Your task to perform on an android device: open app "Google Play Games" (install if not already installed) Image 0: 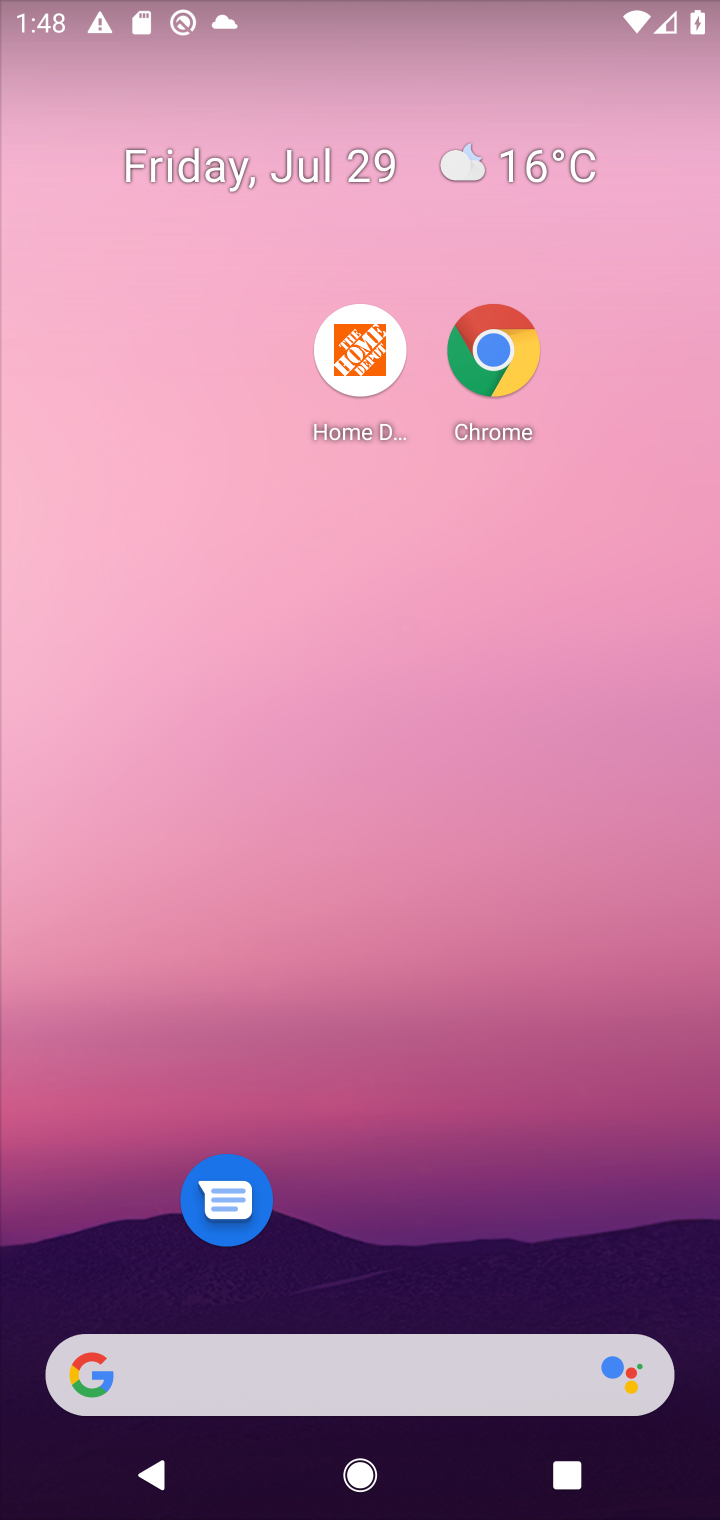
Step 0: press home button
Your task to perform on an android device: open app "Google Play Games" (install if not already installed) Image 1: 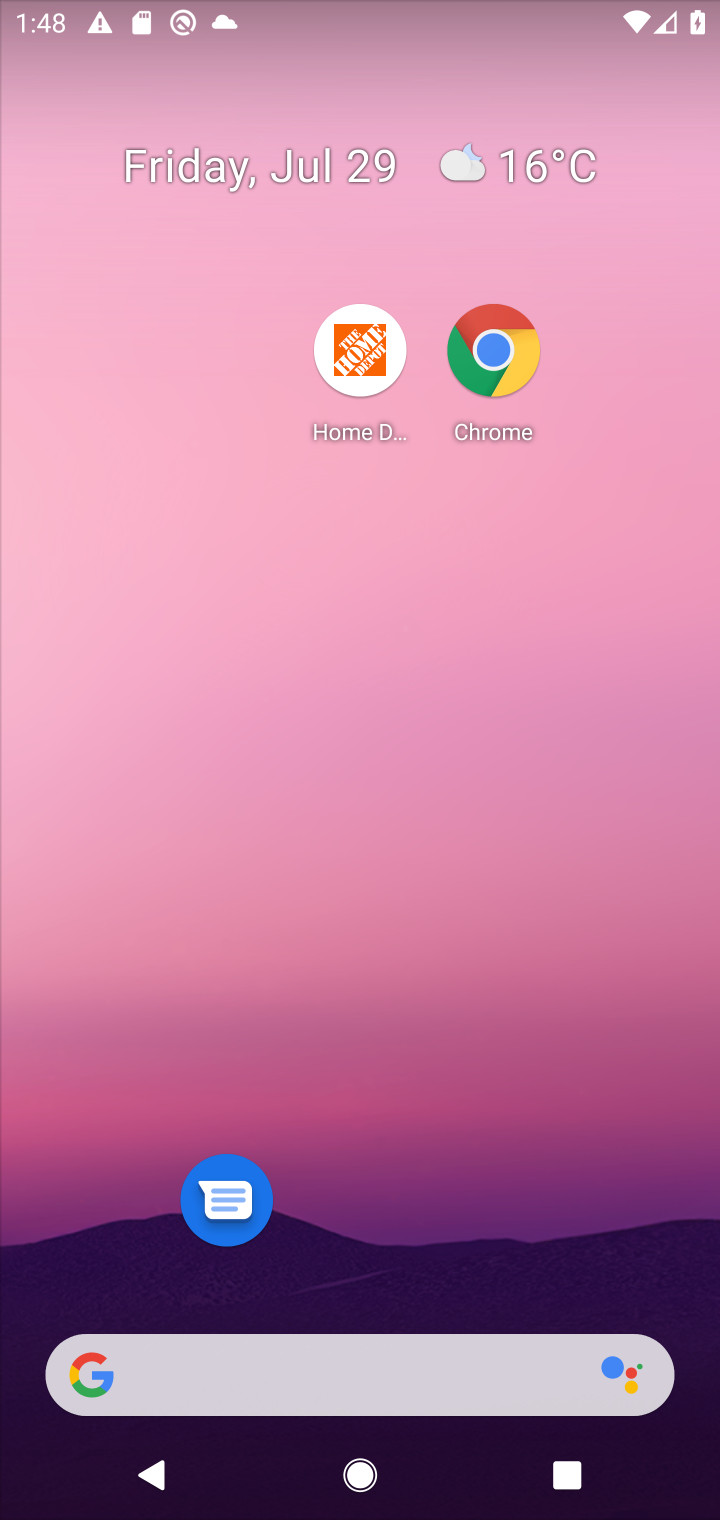
Step 1: drag from (554, 1158) to (398, 213)
Your task to perform on an android device: open app "Google Play Games" (install if not already installed) Image 2: 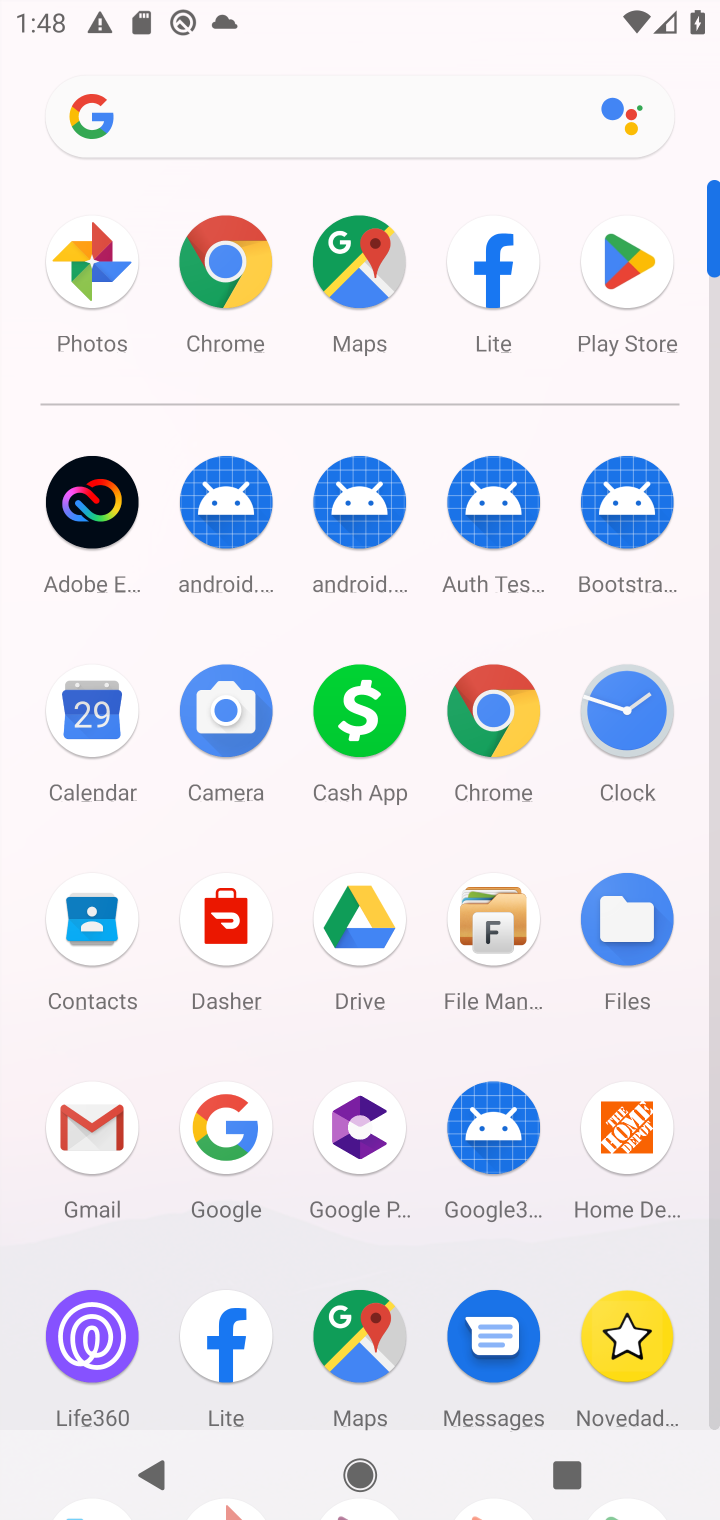
Step 2: click (605, 265)
Your task to perform on an android device: open app "Google Play Games" (install if not already installed) Image 3: 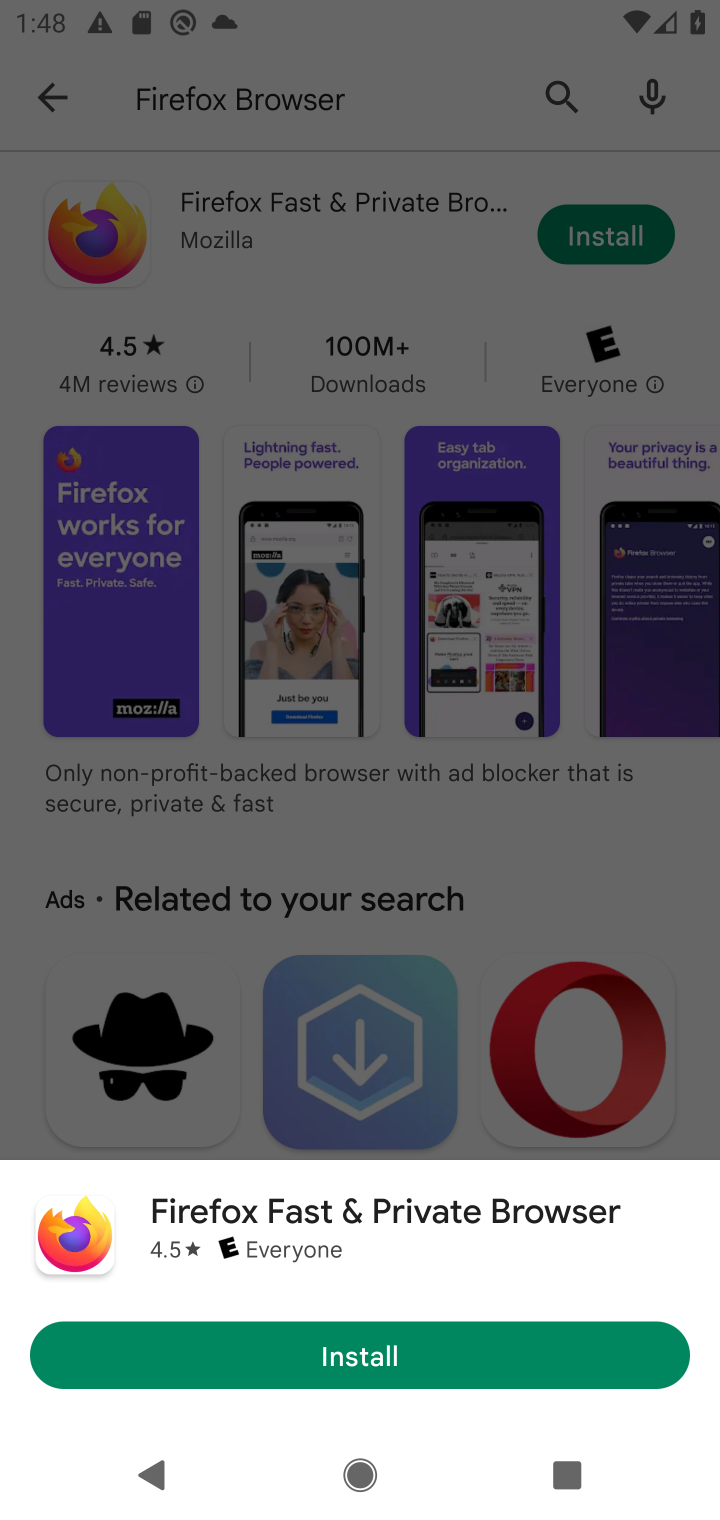
Step 3: click (387, 121)
Your task to perform on an android device: open app "Google Play Games" (install if not already installed) Image 4: 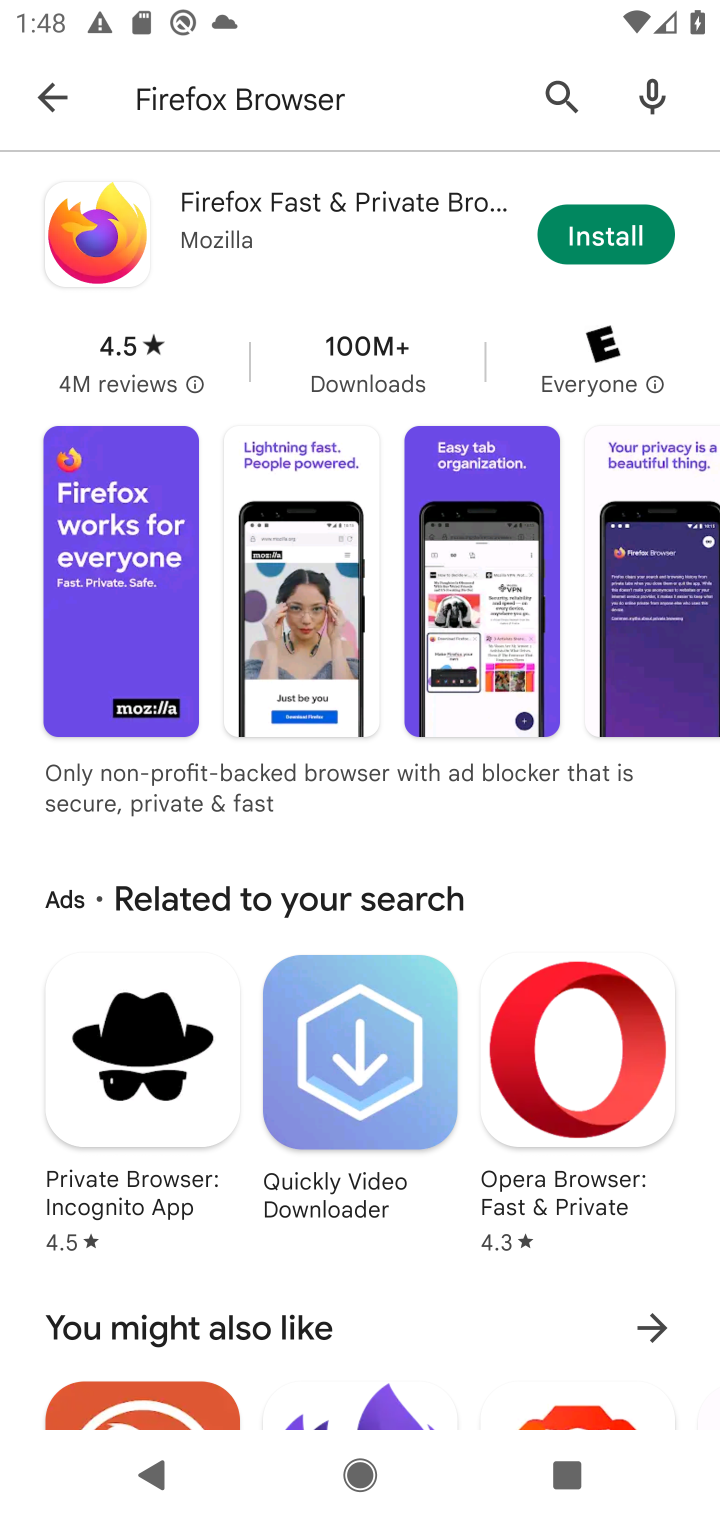
Step 4: click (392, 120)
Your task to perform on an android device: open app "Google Play Games" (install if not already installed) Image 5: 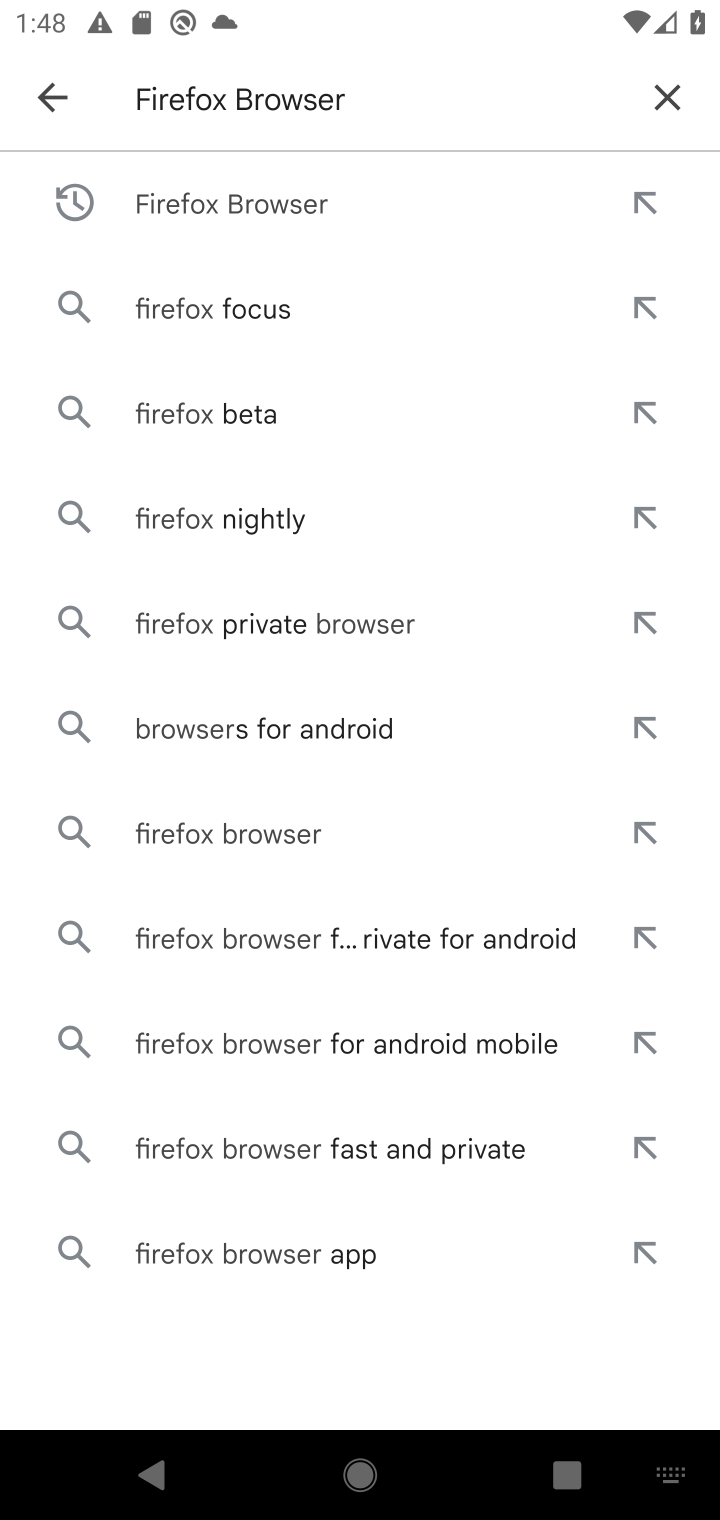
Step 5: click (663, 98)
Your task to perform on an android device: open app "Google Play Games" (install if not already installed) Image 6: 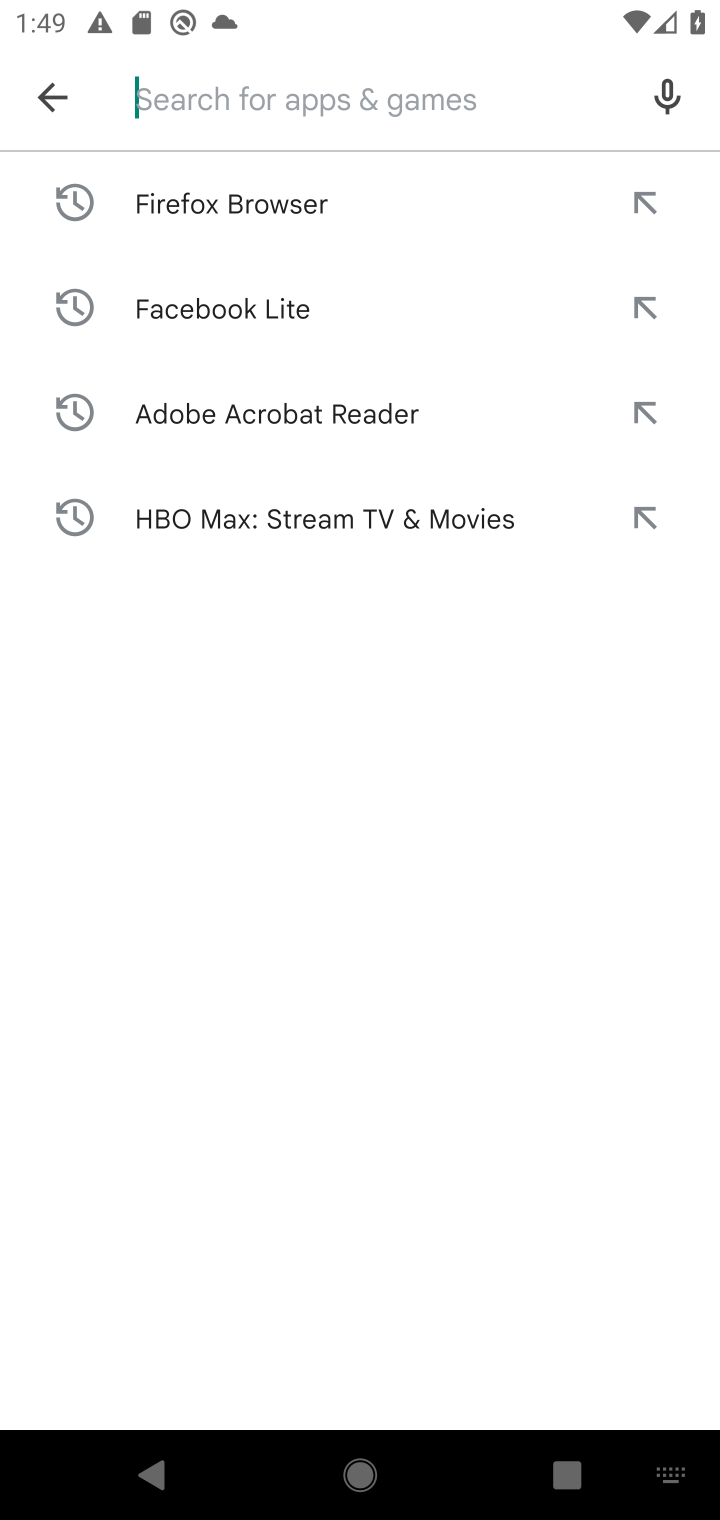
Step 6: type "Google Play Games"
Your task to perform on an android device: open app "Google Play Games" (install if not already installed) Image 7: 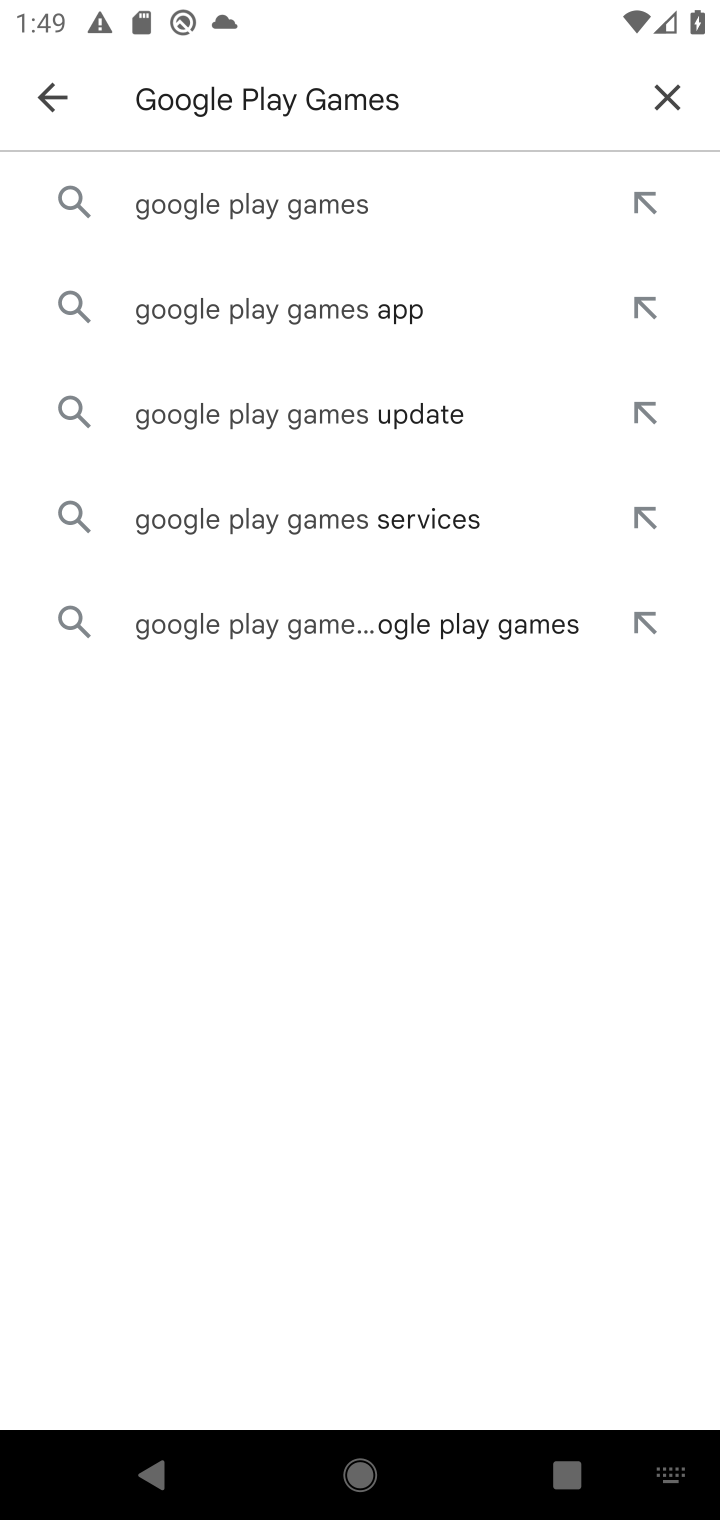
Step 7: press enter
Your task to perform on an android device: open app "Google Play Games" (install if not already installed) Image 8: 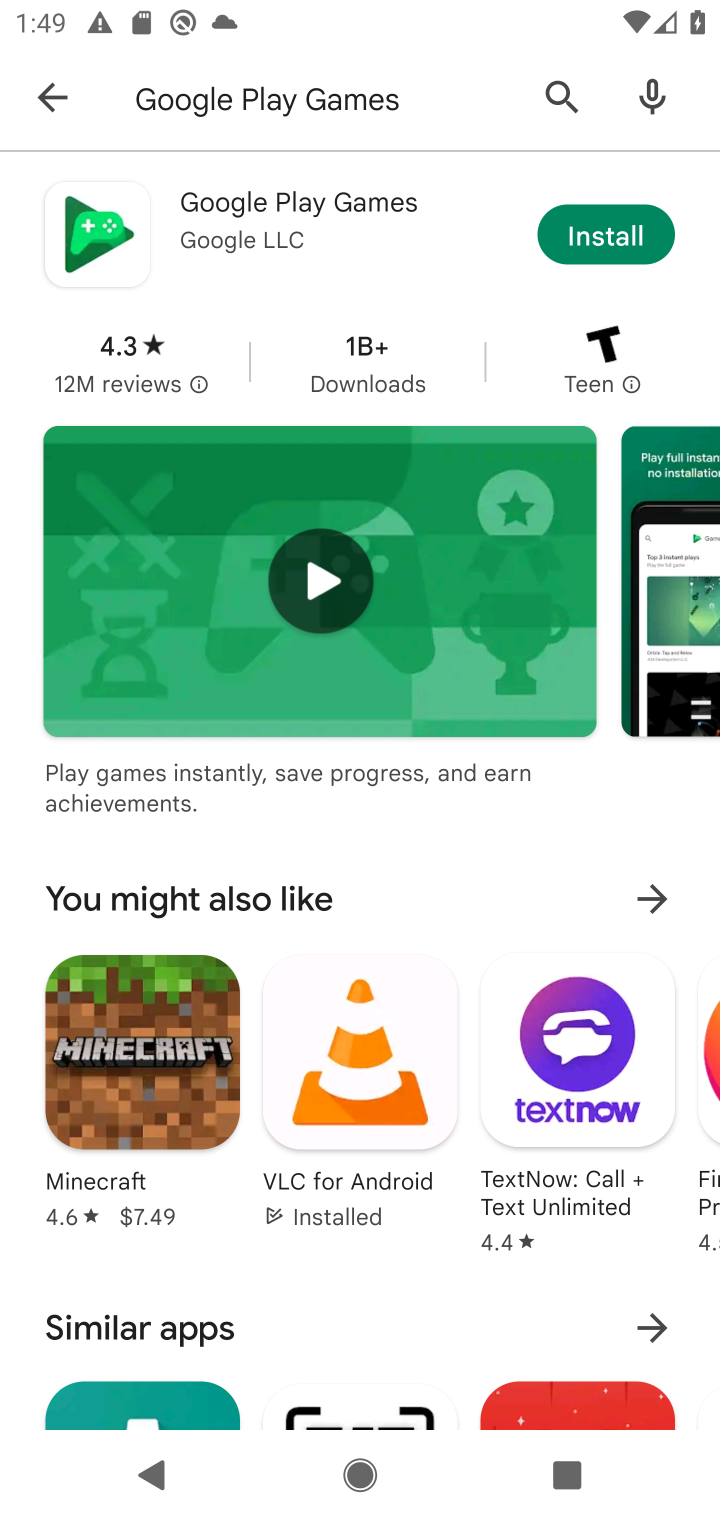
Step 8: click (572, 227)
Your task to perform on an android device: open app "Google Play Games" (install if not already installed) Image 9: 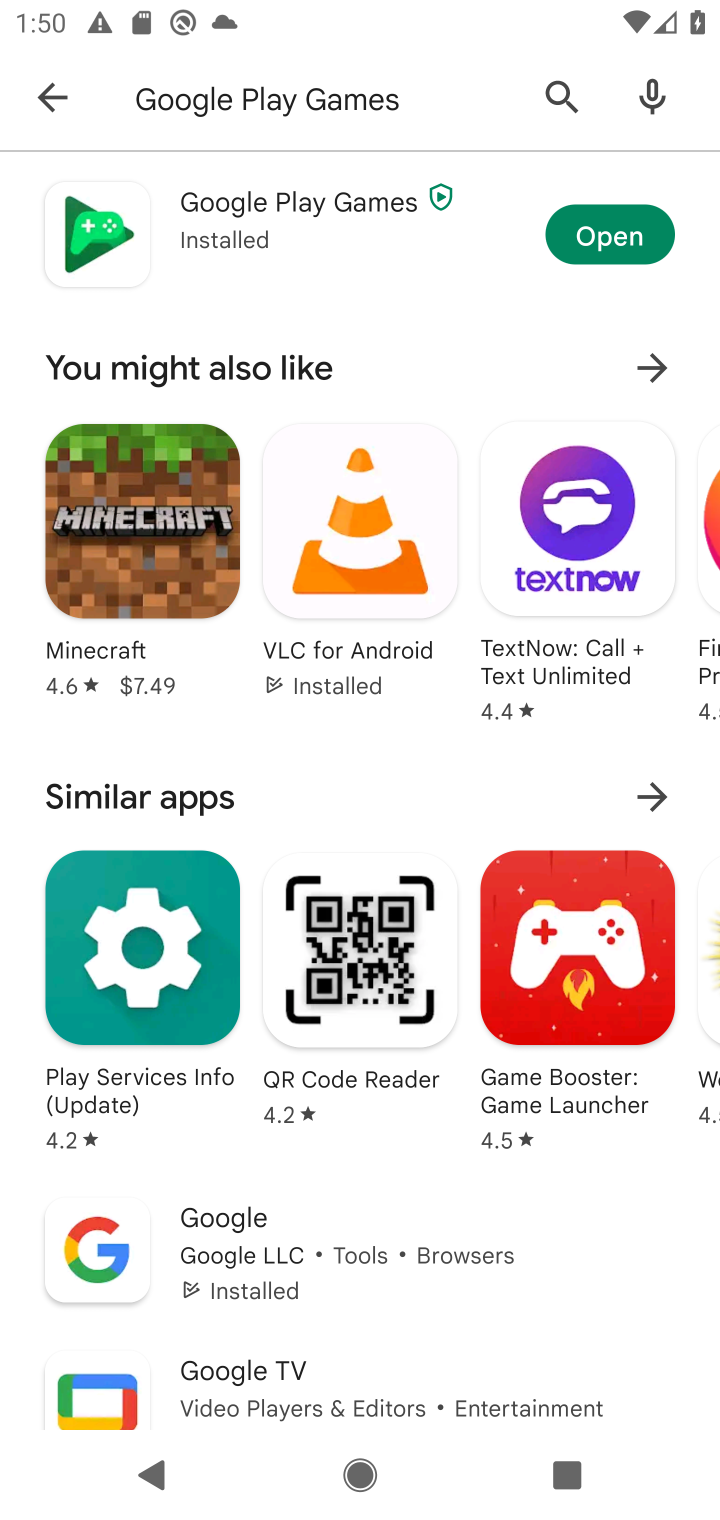
Step 9: click (632, 227)
Your task to perform on an android device: open app "Google Play Games" (install if not already installed) Image 10: 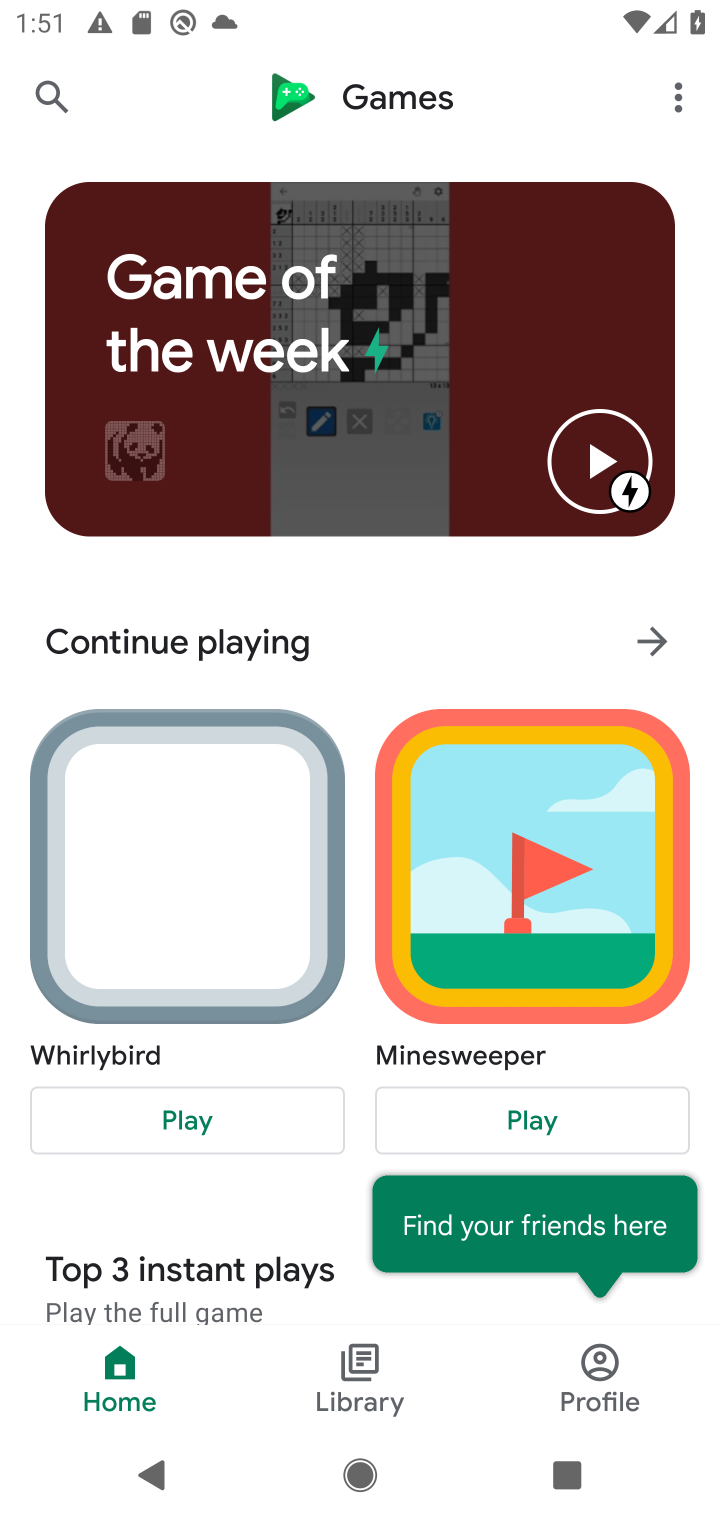
Step 10: task complete